Your task to perform on an android device: Open CNN.com Image 0: 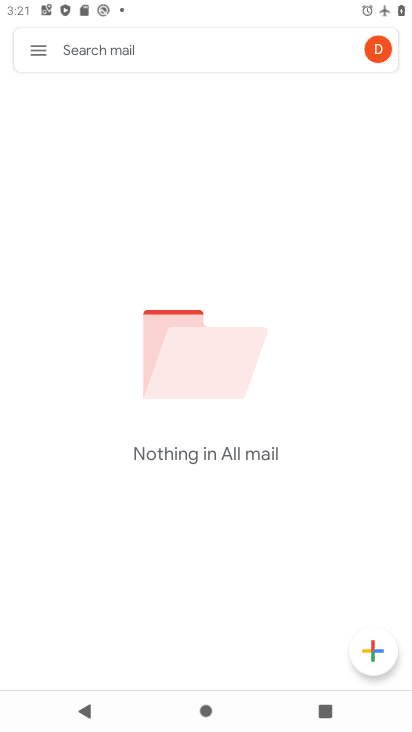
Step 0: press home button
Your task to perform on an android device: Open CNN.com Image 1: 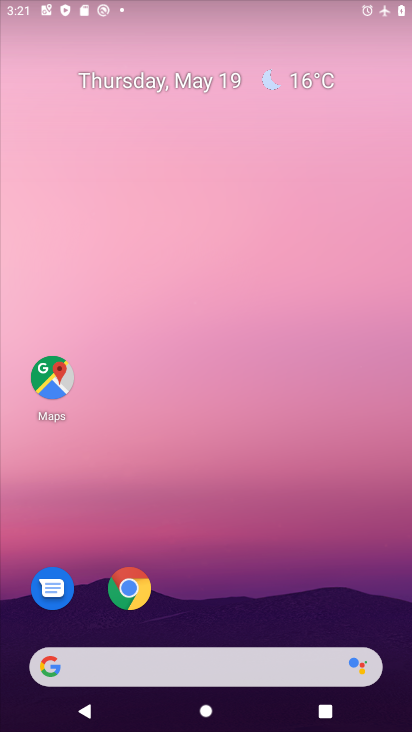
Step 1: drag from (319, 482) to (317, 165)
Your task to perform on an android device: Open CNN.com Image 2: 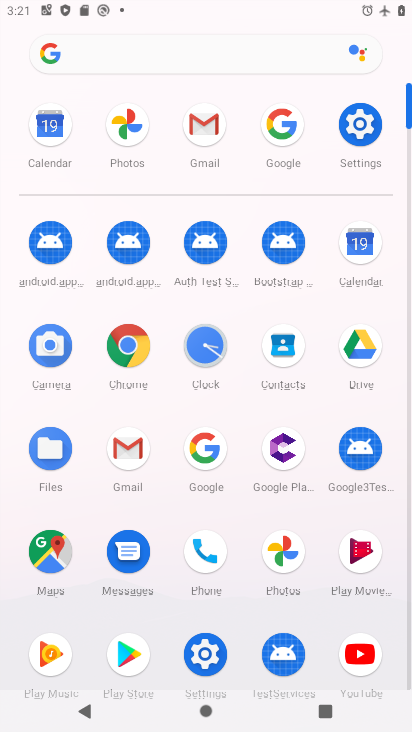
Step 2: click (140, 330)
Your task to perform on an android device: Open CNN.com Image 3: 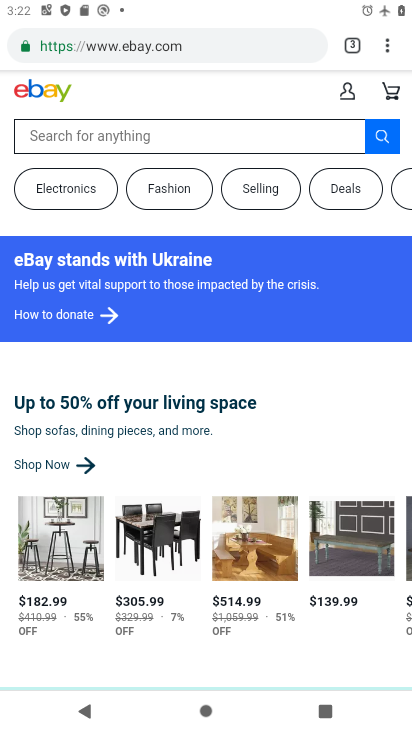
Step 3: click (167, 40)
Your task to perform on an android device: Open CNN.com Image 4: 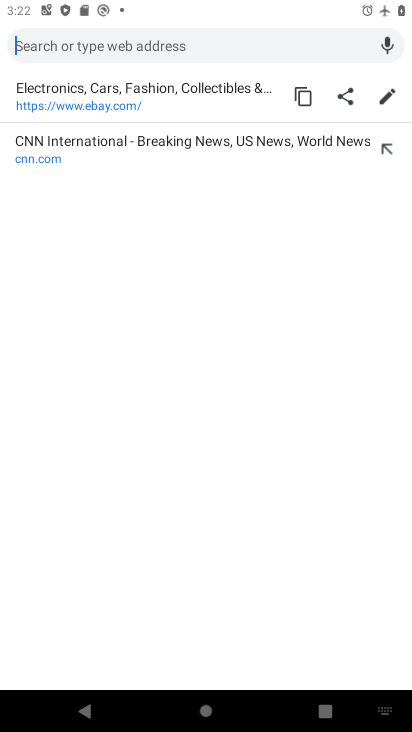
Step 4: click (63, 149)
Your task to perform on an android device: Open CNN.com Image 5: 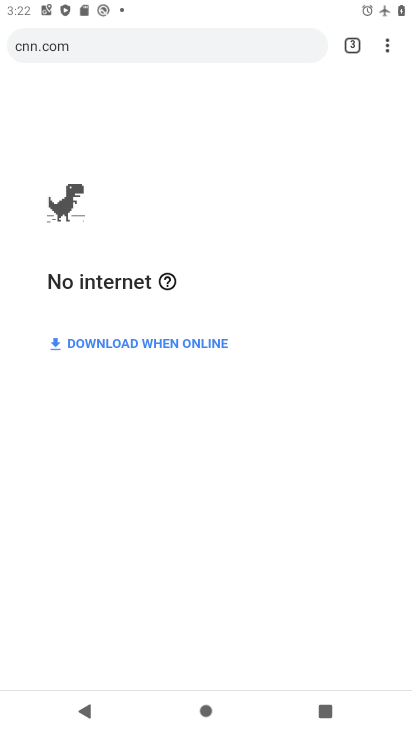
Step 5: task complete